Your task to perform on an android device: turn vacation reply on in the gmail app Image 0: 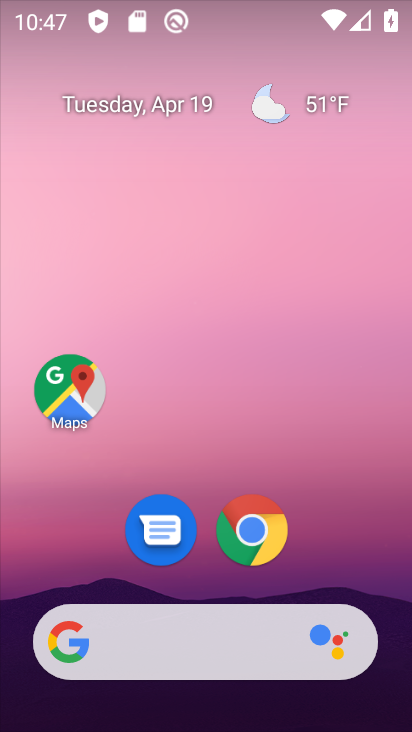
Step 0: drag from (339, 549) to (321, 153)
Your task to perform on an android device: turn vacation reply on in the gmail app Image 1: 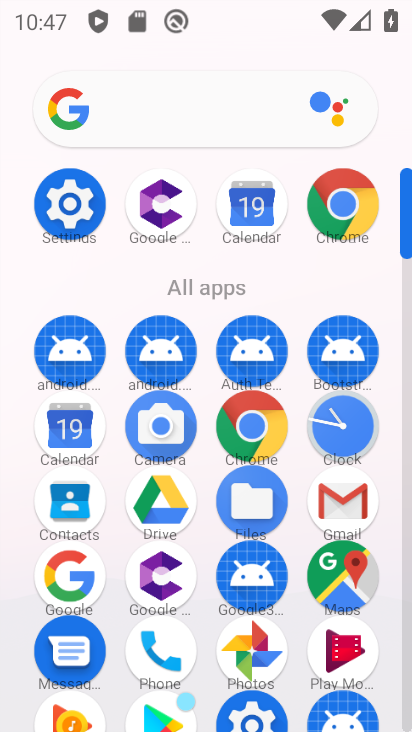
Step 1: click (350, 484)
Your task to perform on an android device: turn vacation reply on in the gmail app Image 2: 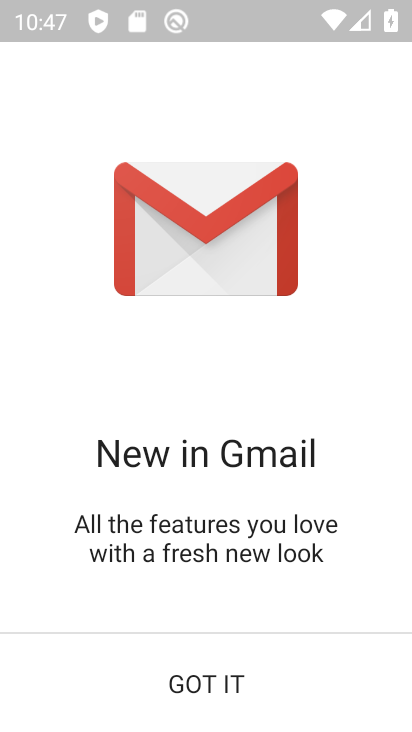
Step 2: click (269, 675)
Your task to perform on an android device: turn vacation reply on in the gmail app Image 3: 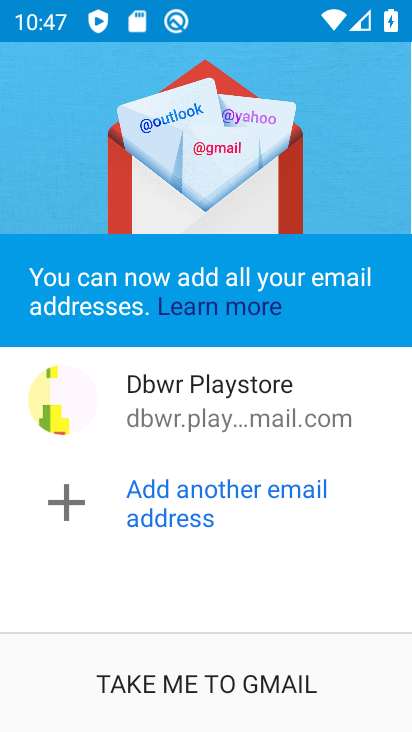
Step 3: click (267, 675)
Your task to perform on an android device: turn vacation reply on in the gmail app Image 4: 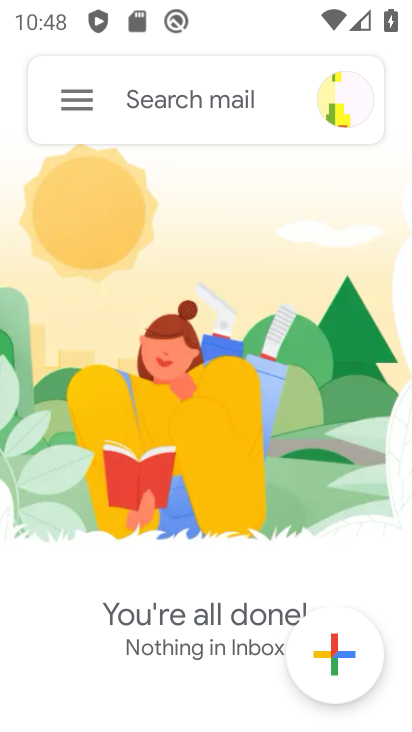
Step 4: click (70, 98)
Your task to perform on an android device: turn vacation reply on in the gmail app Image 5: 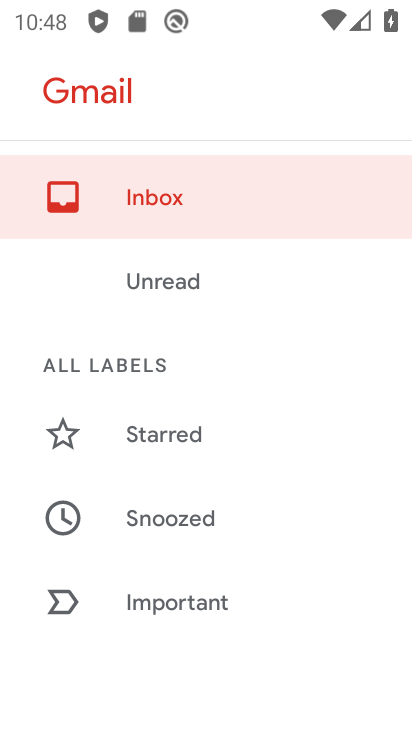
Step 5: drag from (212, 549) to (191, 174)
Your task to perform on an android device: turn vacation reply on in the gmail app Image 6: 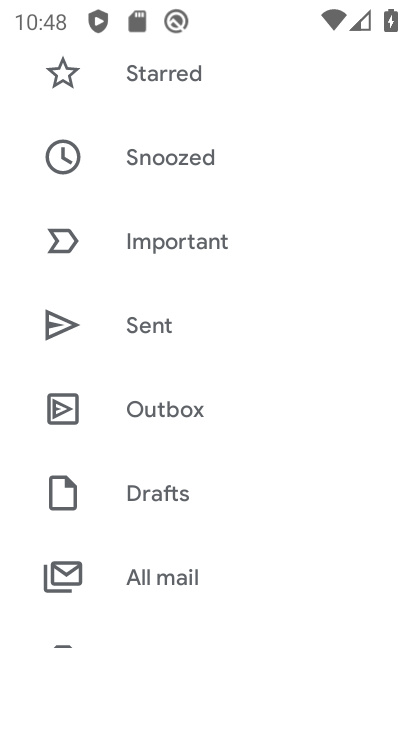
Step 6: drag from (232, 547) to (227, 198)
Your task to perform on an android device: turn vacation reply on in the gmail app Image 7: 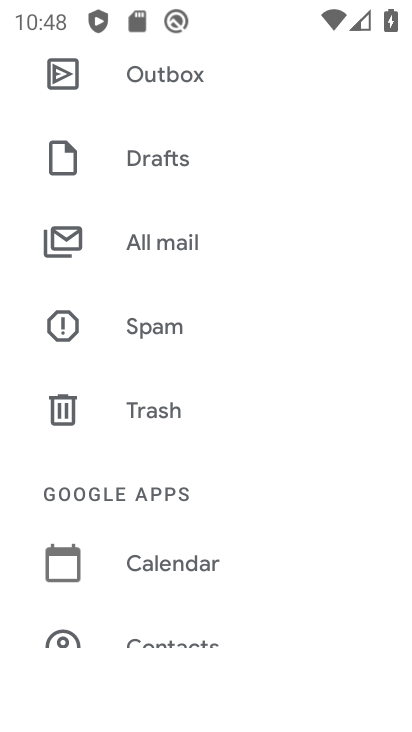
Step 7: drag from (242, 501) to (253, 137)
Your task to perform on an android device: turn vacation reply on in the gmail app Image 8: 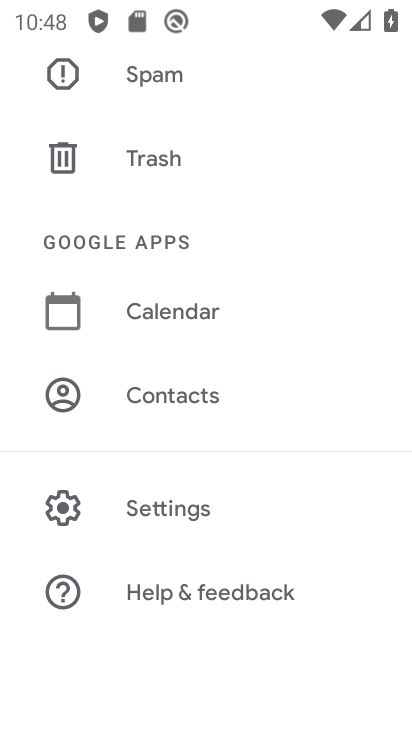
Step 8: click (205, 510)
Your task to perform on an android device: turn vacation reply on in the gmail app Image 9: 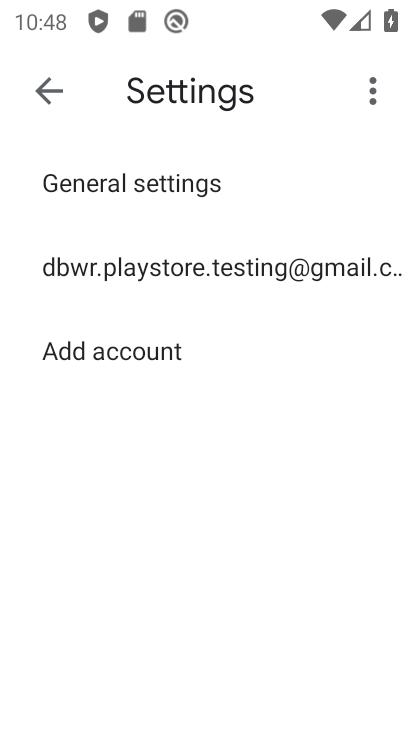
Step 9: click (282, 263)
Your task to perform on an android device: turn vacation reply on in the gmail app Image 10: 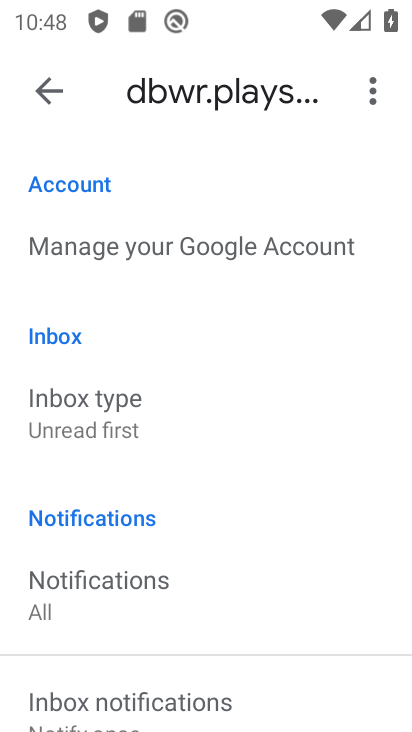
Step 10: drag from (258, 600) to (222, 211)
Your task to perform on an android device: turn vacation reply on in the gmail app Image 11: 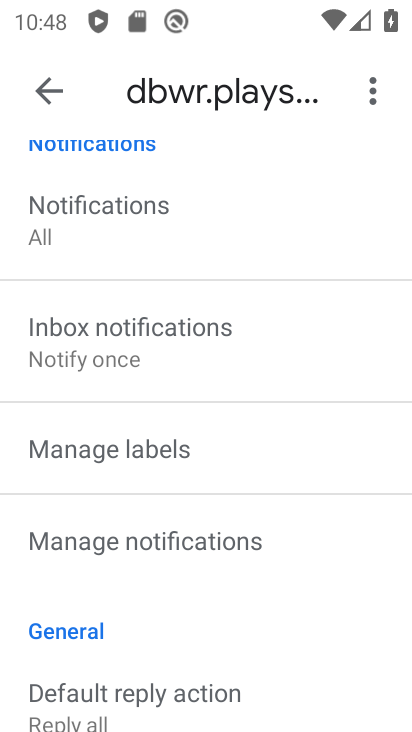
Step 11: drag from (224, 598) to (206, 197)
Your task to perform on an android device: turn vacation reply on in the gmail app Image 12: 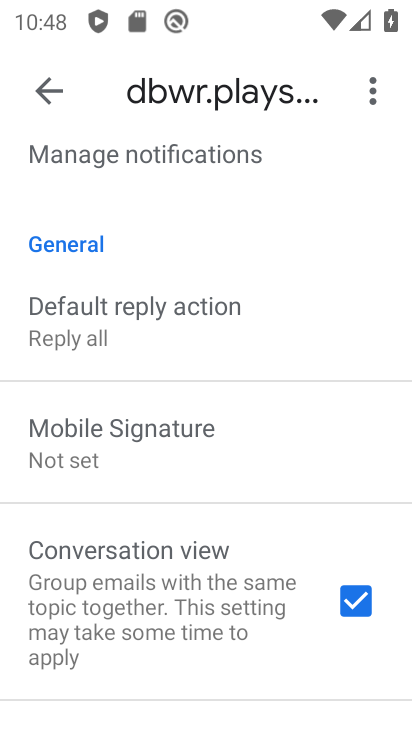
Step 12: drag from (210, 593) to (208, 221)
Your task to perform on an android device: turn vacation reply on in the gmail app Image 13: 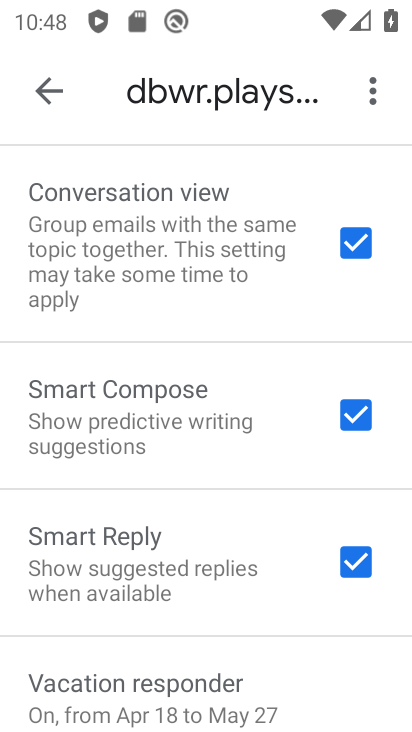
Step 13: drag from (224, 644) to (226, 184)
Your task to perform on an android device: turn vacation reply on in the gmail app Image 14: 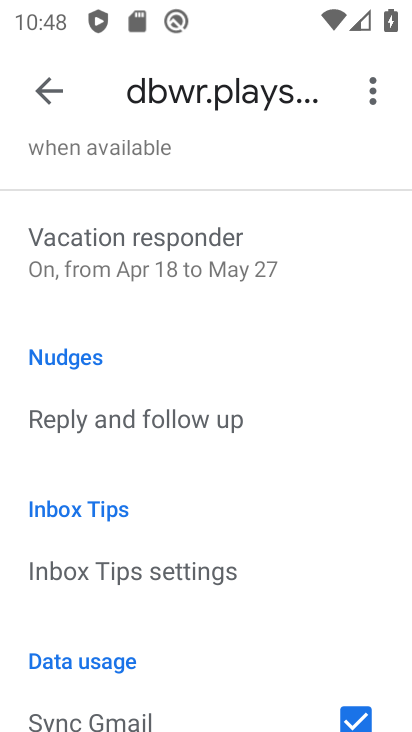
Step 14: click (221, 254)
Your task to perform on an android device: turn vacation reply on in the gmail app Image 15: 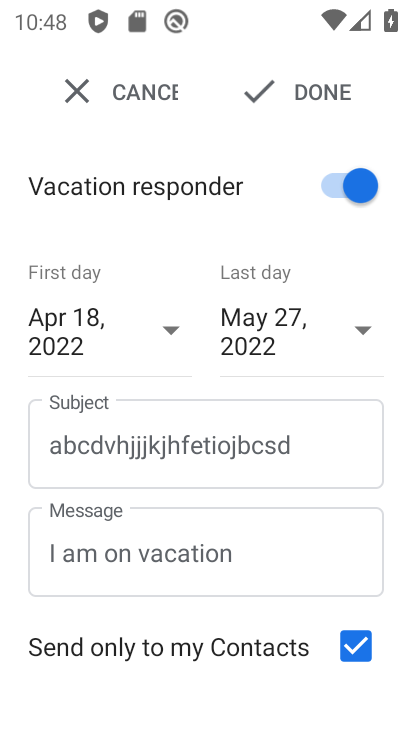
Step 15: task complete